Your task to perform on an android device: allow cookies in the chrome app Image 0: 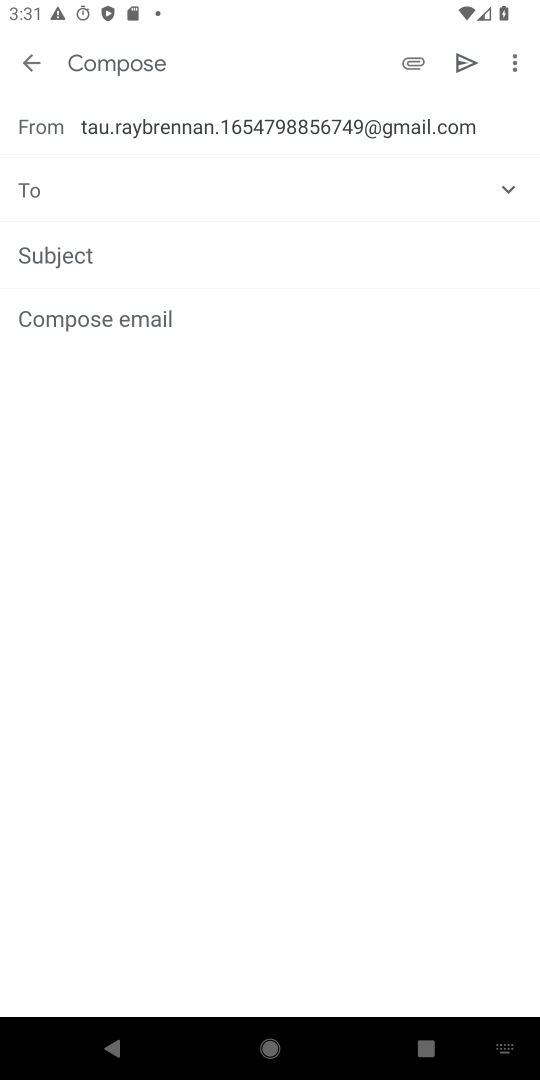
Step 0: press home button
Your task to perform on an android device: allow cookies in the chrome app Image 1: 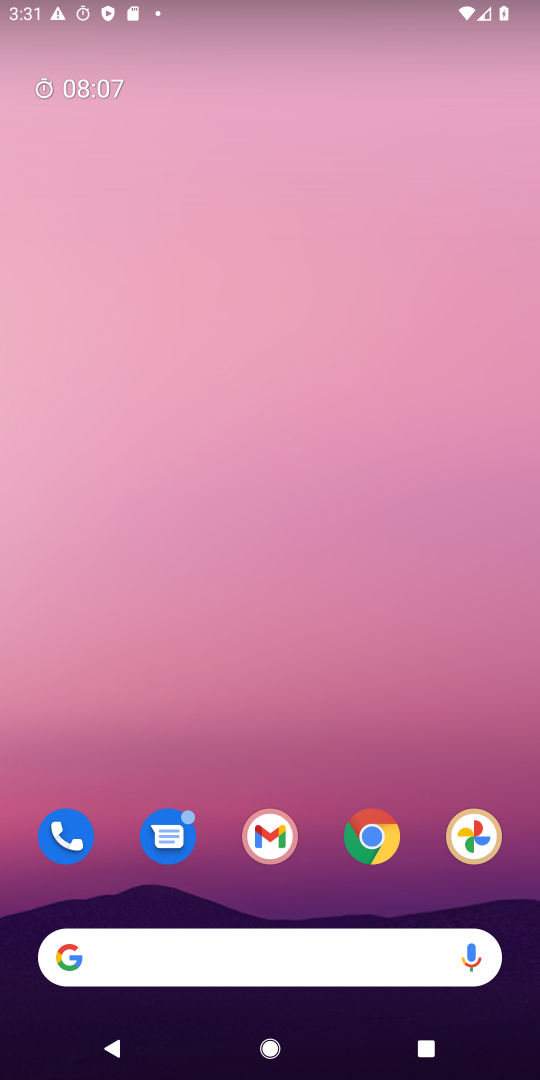
Step 1: click (381, 840)
Your task to perform on an android device: allow cookies in the chrome app Image 2: 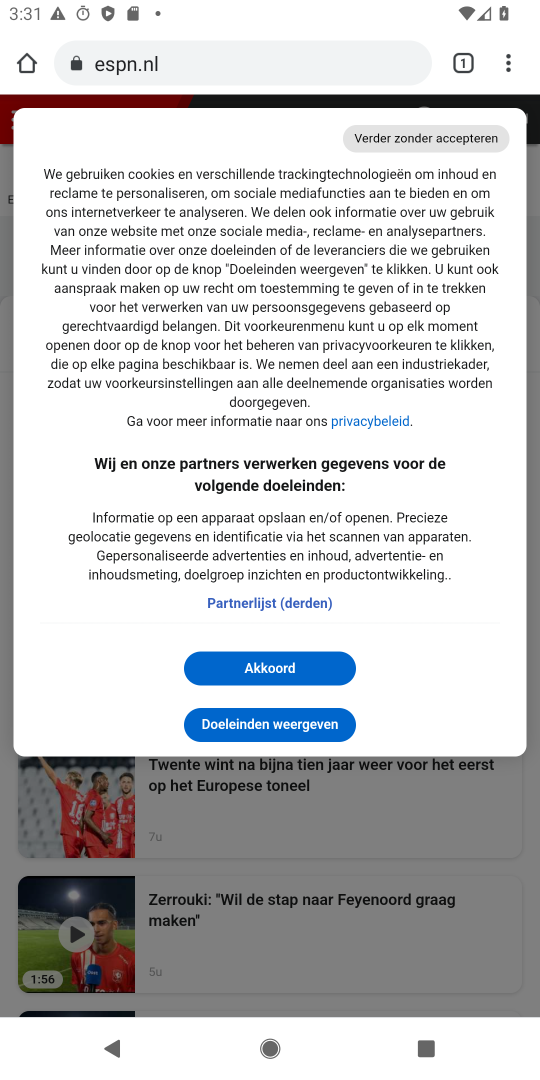
Step 2: click (515, 53)
Your task to perform on an android device: allow cookies in the chrome app Image 3: 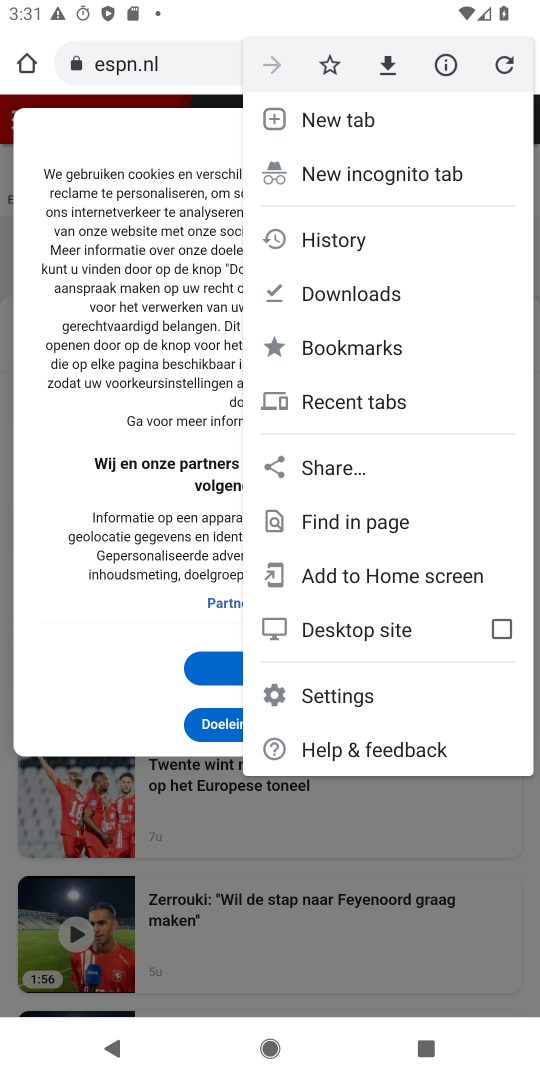
Step 3: click (339, 700)
Your task to perform on an android device: allow cookies in the chrome app Image 4: 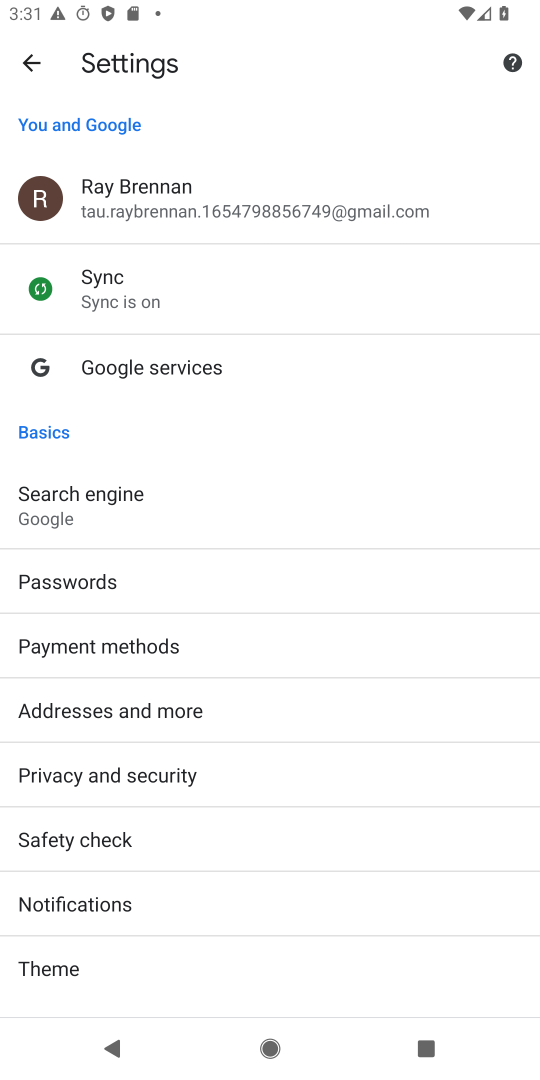
Step 4: drag from (113, 886) to (150, 191)
Your task to perform on an android device: allow cookies in the chrome app Image 5: 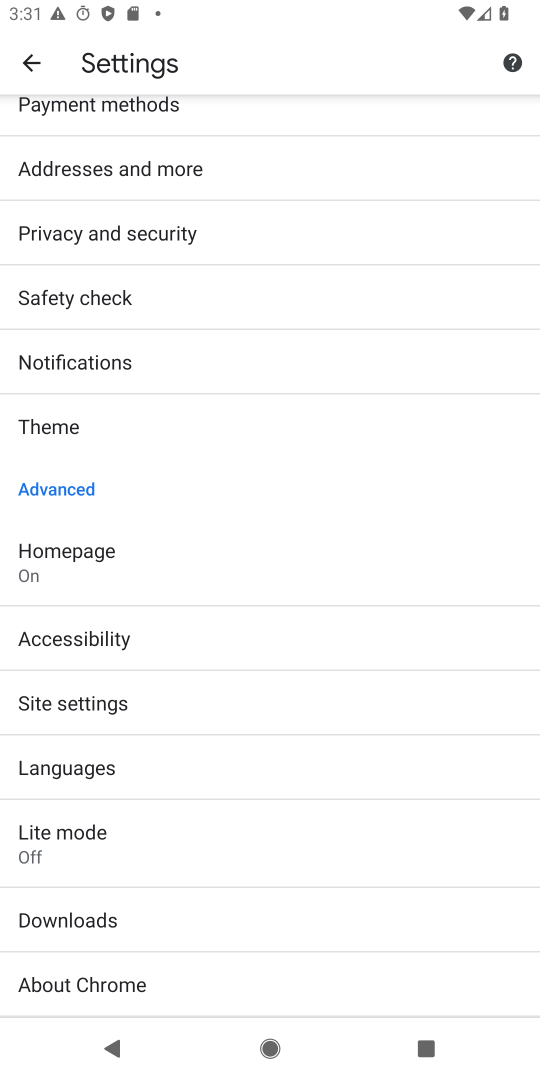
Step 5: click (110, 712)
Your task to perform on an android device: allow cookies in the chrome app Image 6: 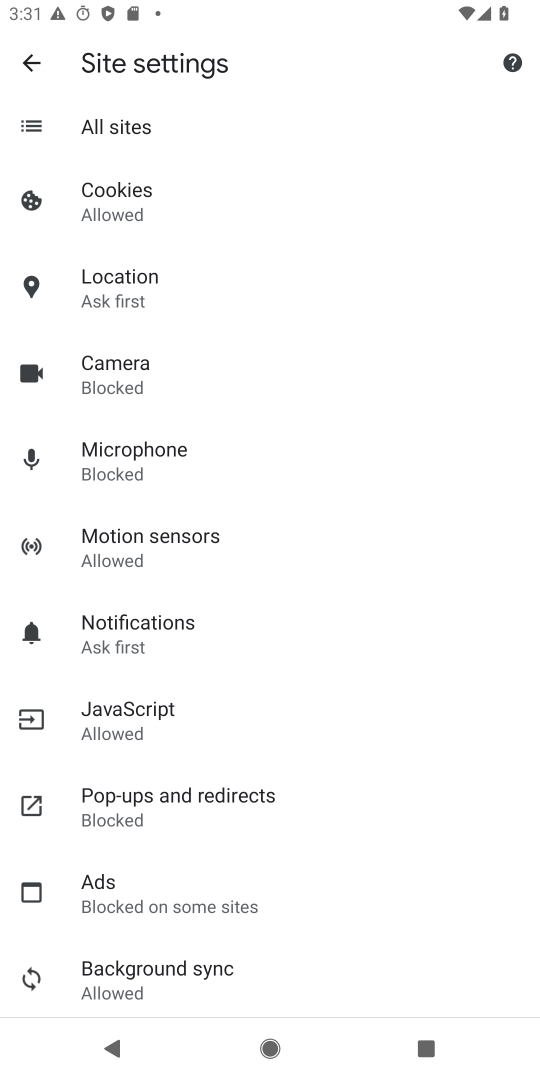
Step 6: click (132, 187)
Your task to perform on an android device: allow cookies in the chrome app Image 7: 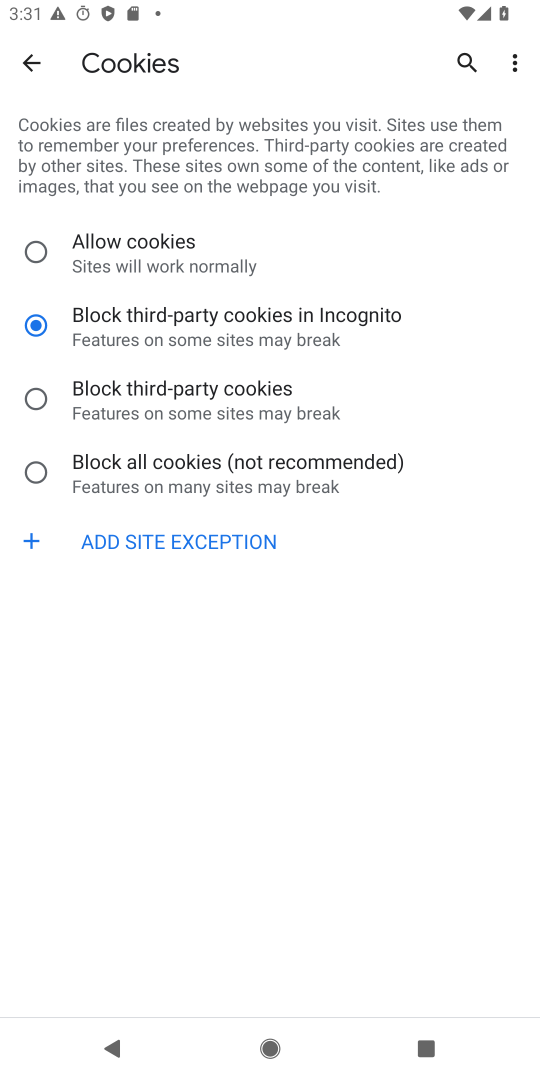
Step 7: click (158, 250)
Your task to perform on an android device: allow cookies in the chrome app Image 8: 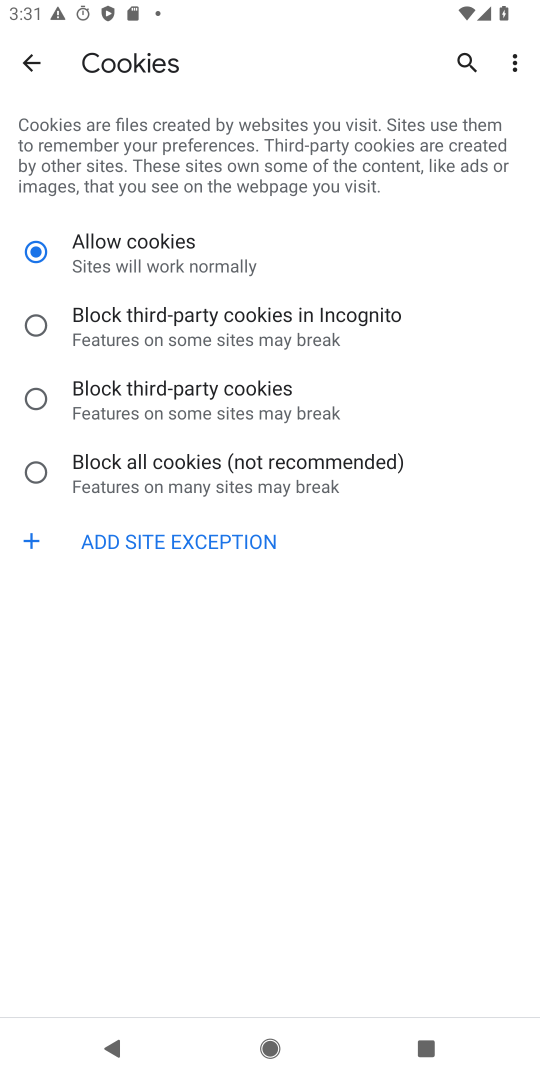
Step 8: task complete